Your task to perform on an android device: Go to Yahoo.com Image 0: 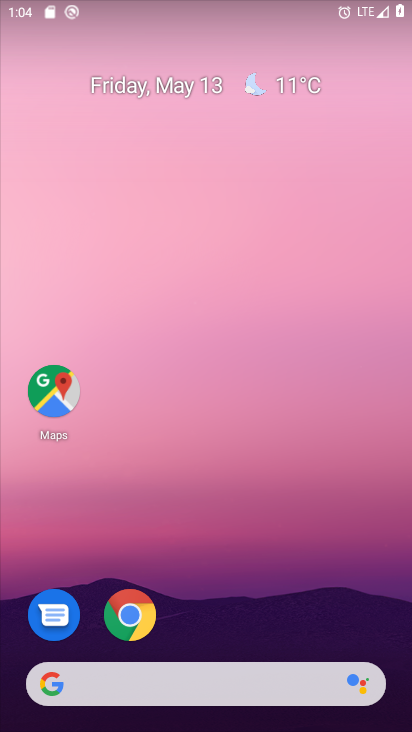
Step 0: click (236, 676)
Your task to perform on an android device: Go to Yahoo.com Image 1: 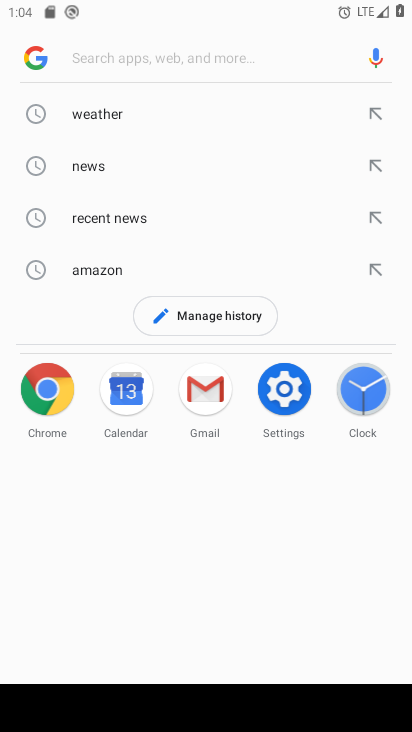
Step 1: type "yahoo.com"
Your task to perform on an android device: Go to Yahoo.com Image 2: 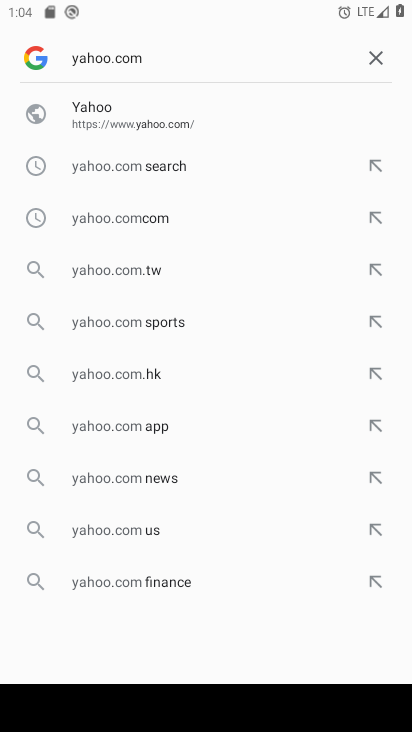
Step 2: click (108, 110)
Your task to perform on an android device: Go to Yahoo.com Image 3: 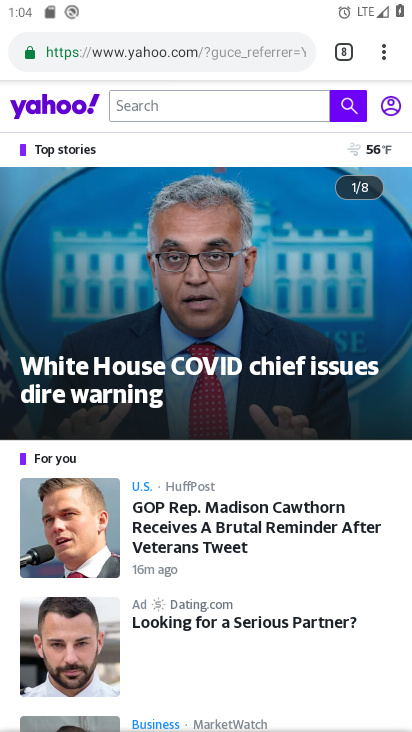
Step 3: task complete